Your task to perform on an android device: Set the phone to "Do not disturb". Image 0: 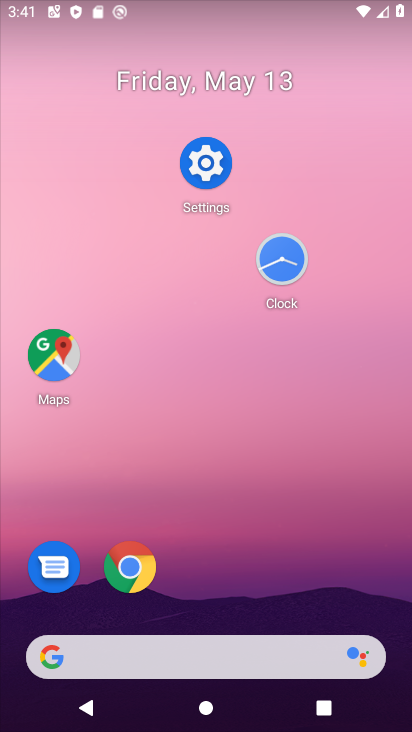
Step 0: click (188, 209)
Your task to perform on an android device: Set the phone to "Do not disturb". Image 1: 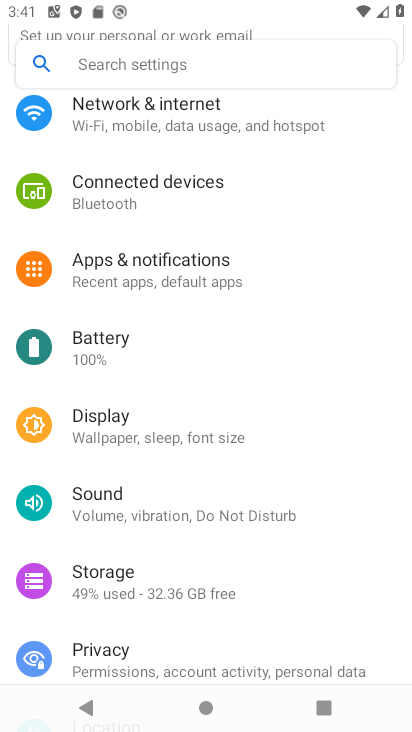
Step 1: click (207, 496)
Your task to perform on an android device: Set the phone to "Do not disturb". Image 2: 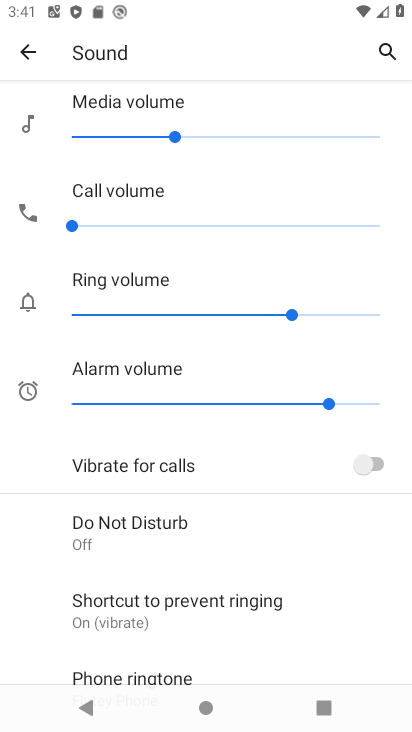
Step 2: click (201, 515)
Your task to perform on an android device: Set the phone to "Do not disturb". Image 3: 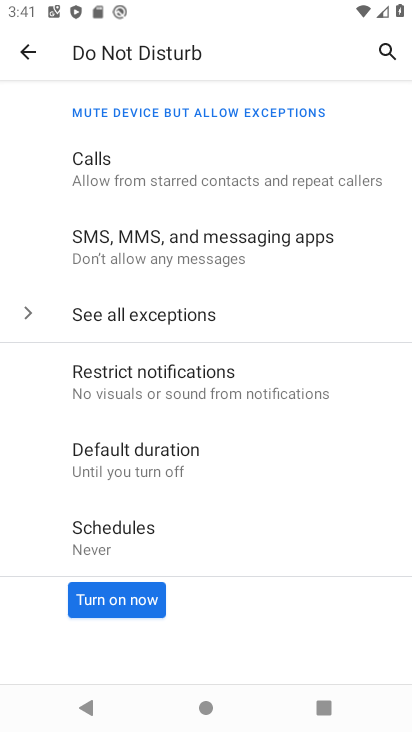
Step 3: click (111, 594)
Your task to perform on an android device: Set the phone to "Do not disturb". Image 4: 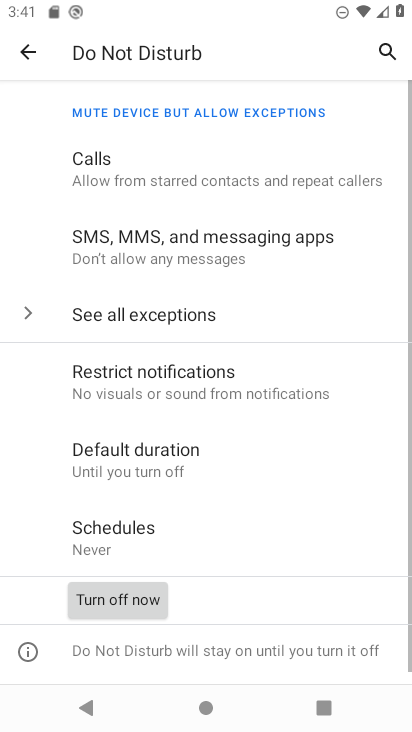
Step 4: task complete